Your task to perform on an android device: Open network settings Image 0: 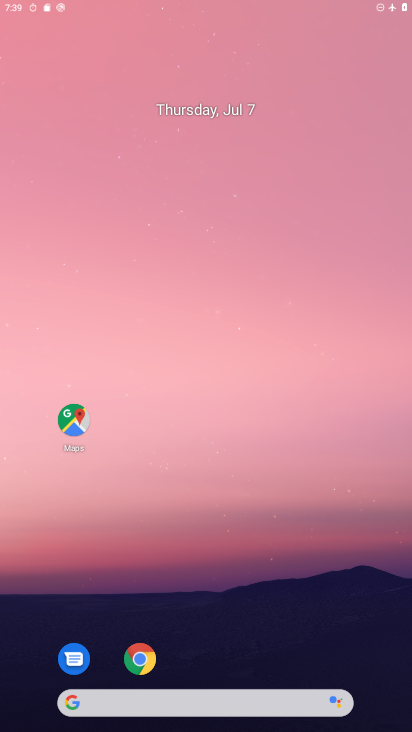
Step 0: drag from (356, 651) to (215, 3)
Your task to perform on an android device: Open network settings Image 1: 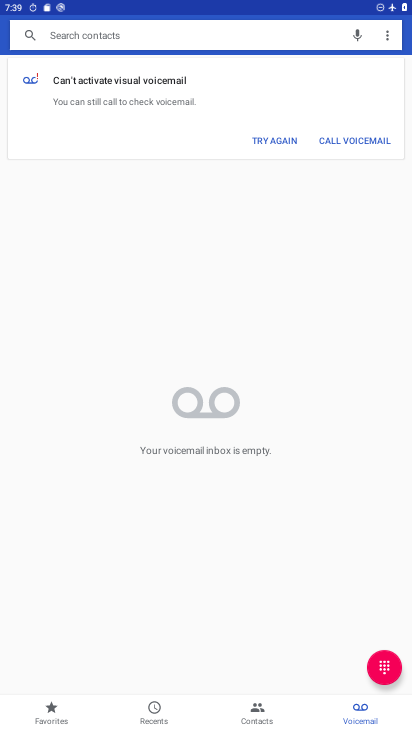
Step 1: press home button
Your task to perform on an android device: Open network settings Image 2: 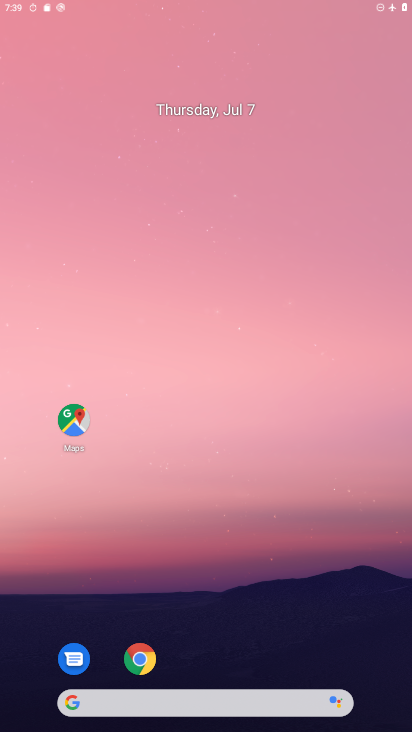
Step 2: drag from (377, 683) to (272, 62)
Your task to perform on an android device: Open network settings Image 3: 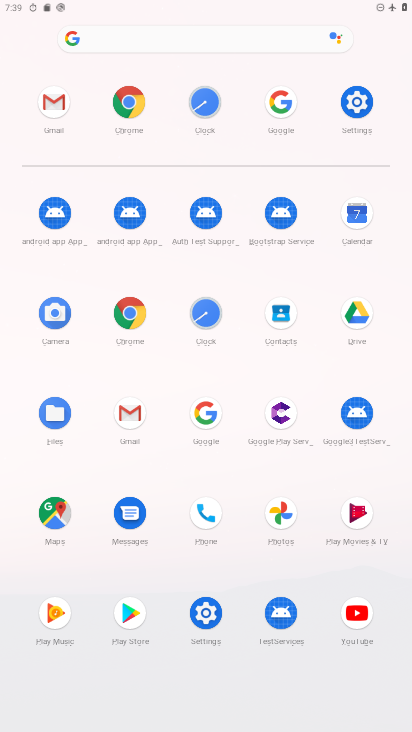
Step 3: click (355, 101)
Your task to perform on an android device: Open network settings Image 4: 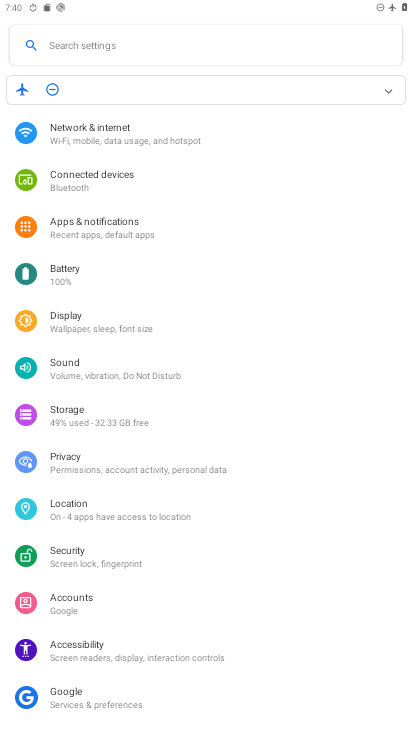
Step 4: click (136, 134)
Your task to perform on an android device: Open network settings Image 5: 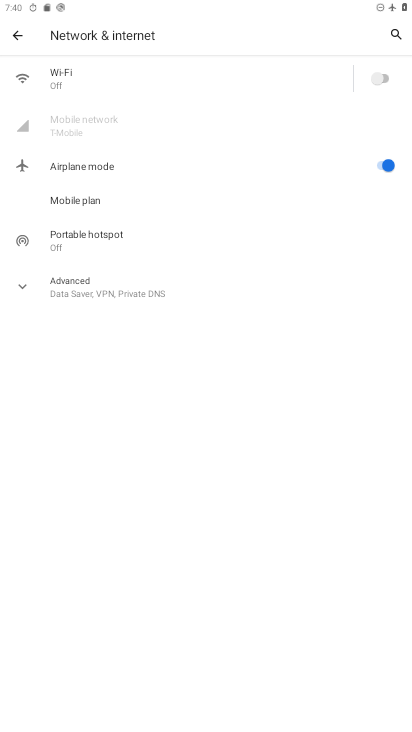
Step 5: task complete